Your task to perform on an android device: Go to Google maps Image 0: 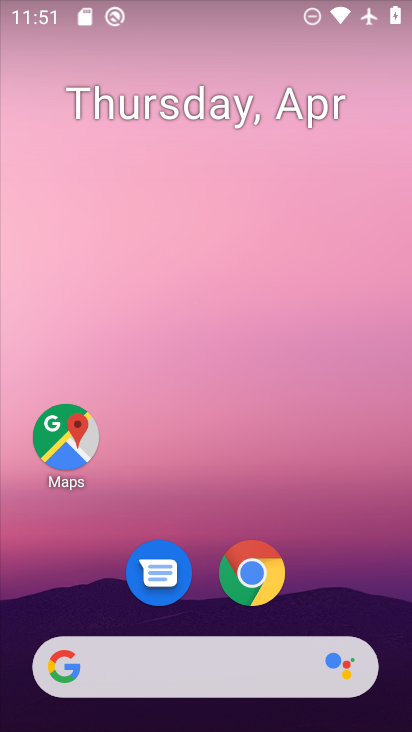
Step 0: drag from (318, 516) to (345, 26)
Your task to perform on an android device: Go to Google maps Image 1: 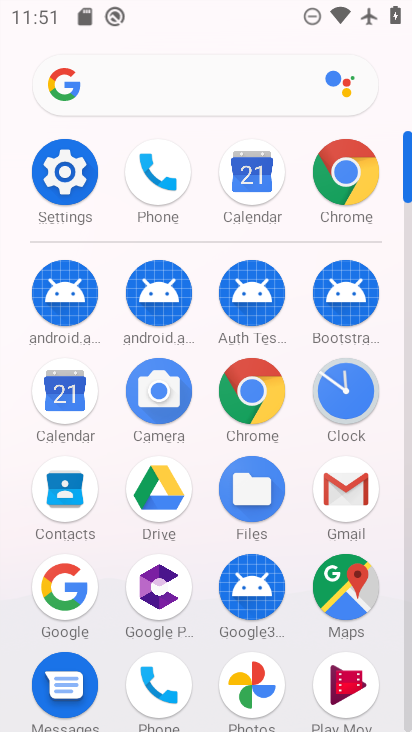
Step 1: click (331, 576)
Your task to perform on an android device: Go to Google maps Image 2: 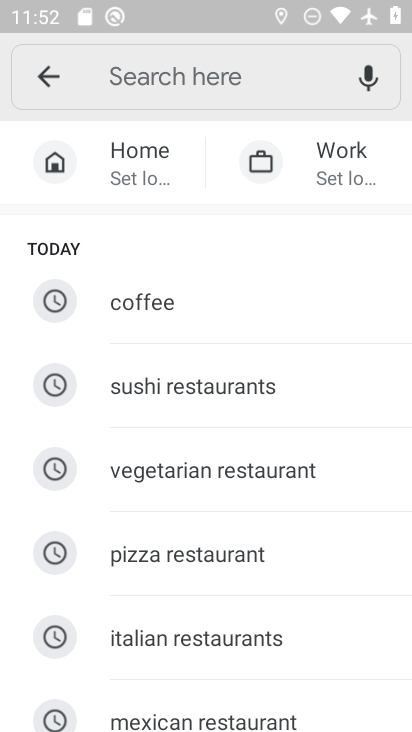
Step 2: task complete